Your task to perform on an android device: Do I have any events tomorrow? Image 0: 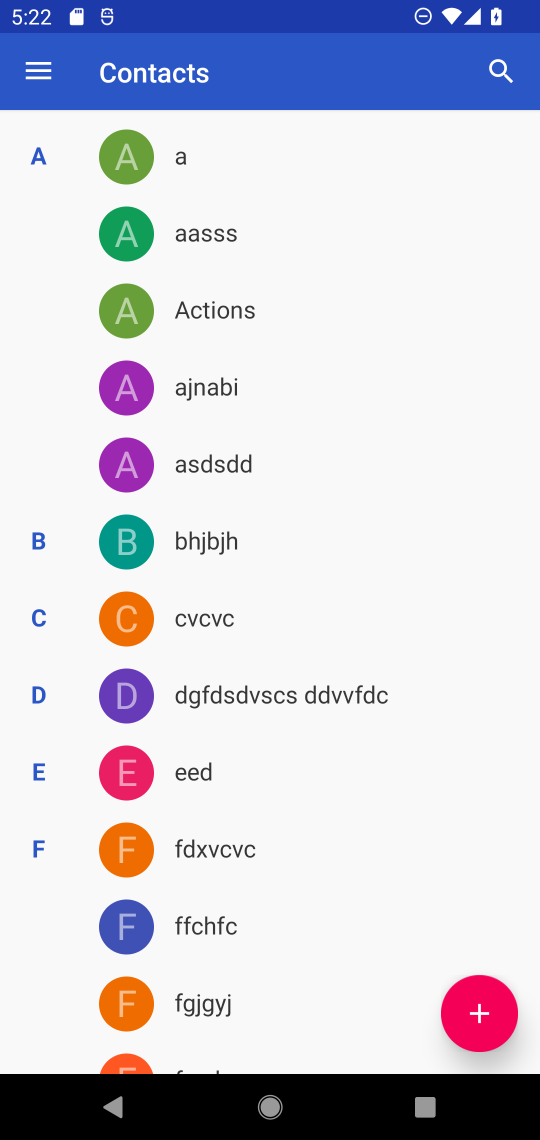
Step 0: press home button
Your task to perform on an android device: Do I have any events tomorrow? Image 1: 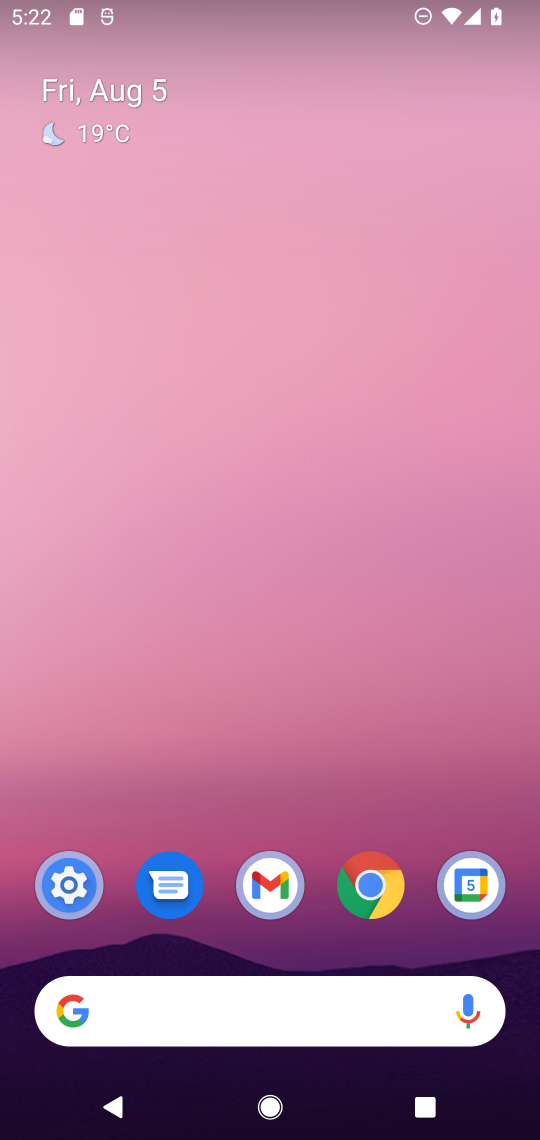
Step 1: drag from (297, 864) to (274, 122)
Your task to perform on an android device: Do I have any events tomorrow? Image 2: 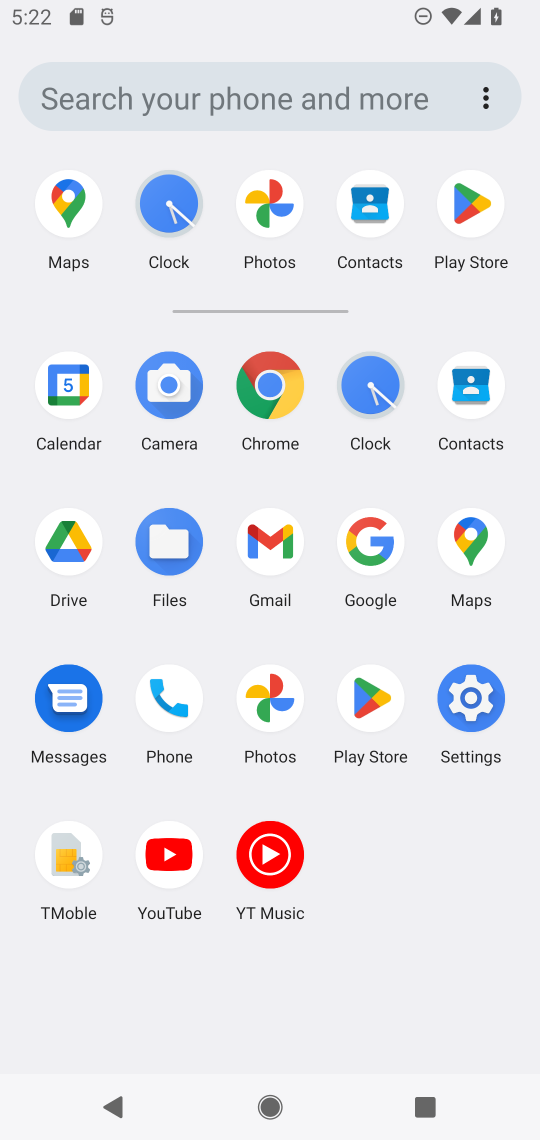
Step 2: click (63, 373)
Your task to perform on an android device: Do I have any events tomorrow? Image 3: 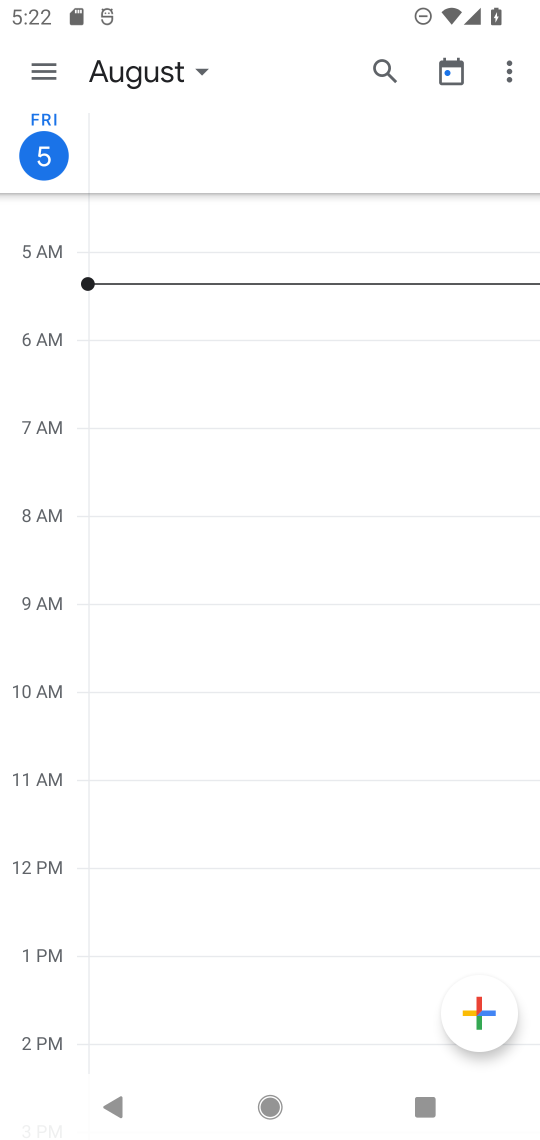
Step 3: click (200, 63)
Your task to perform on an android device: Do I have any events tomorrow? Image 4: 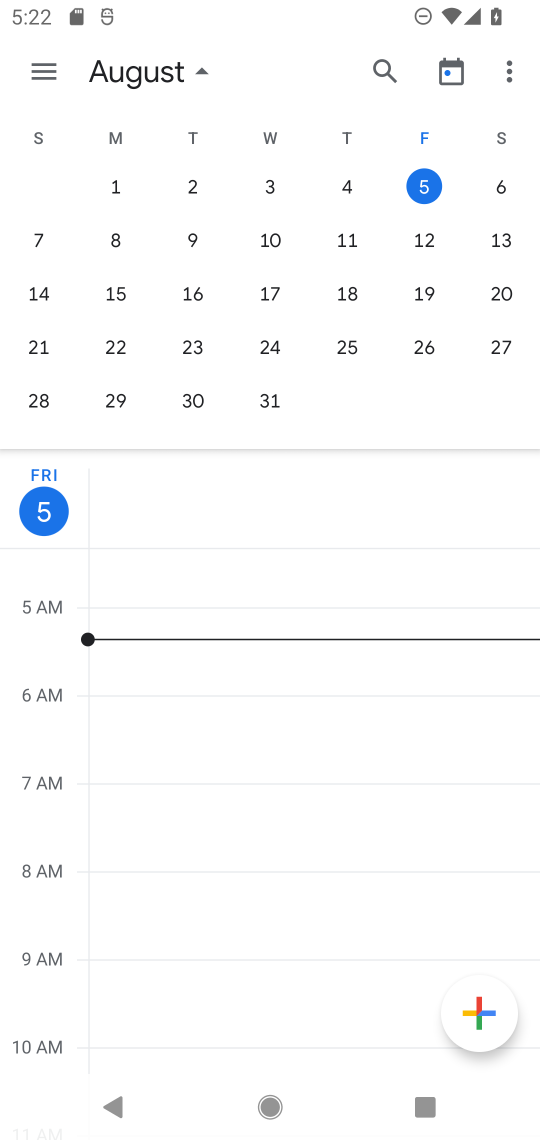
Step 4: click (498, 184)
Your task to perform on an android device: Do I have any events tomorrow? Image 5: 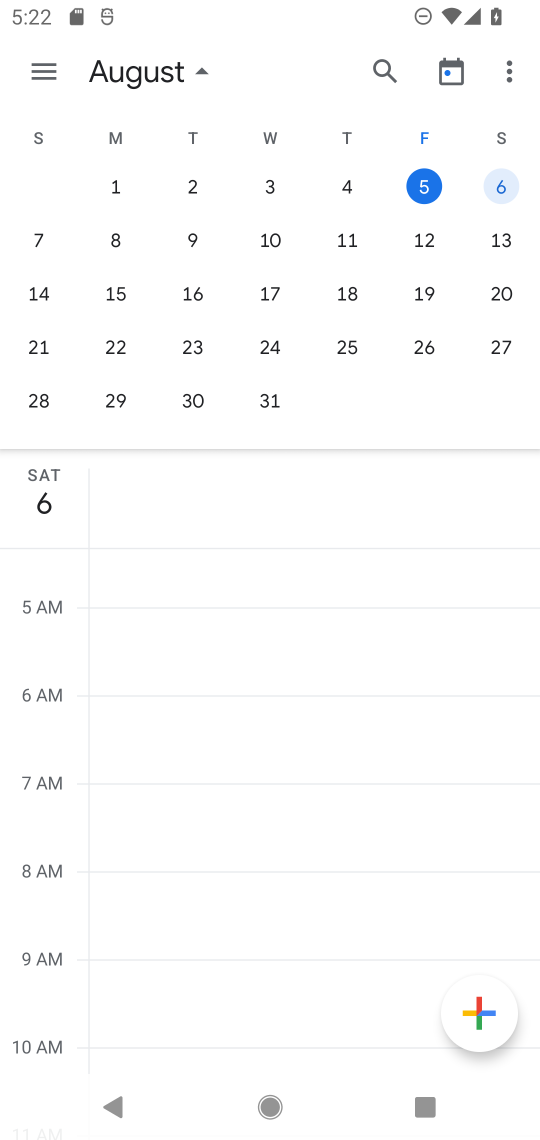
Step 5: click (501, 173)
Your task to perform on an android device: Do I have any events tomorrow? Image 6: 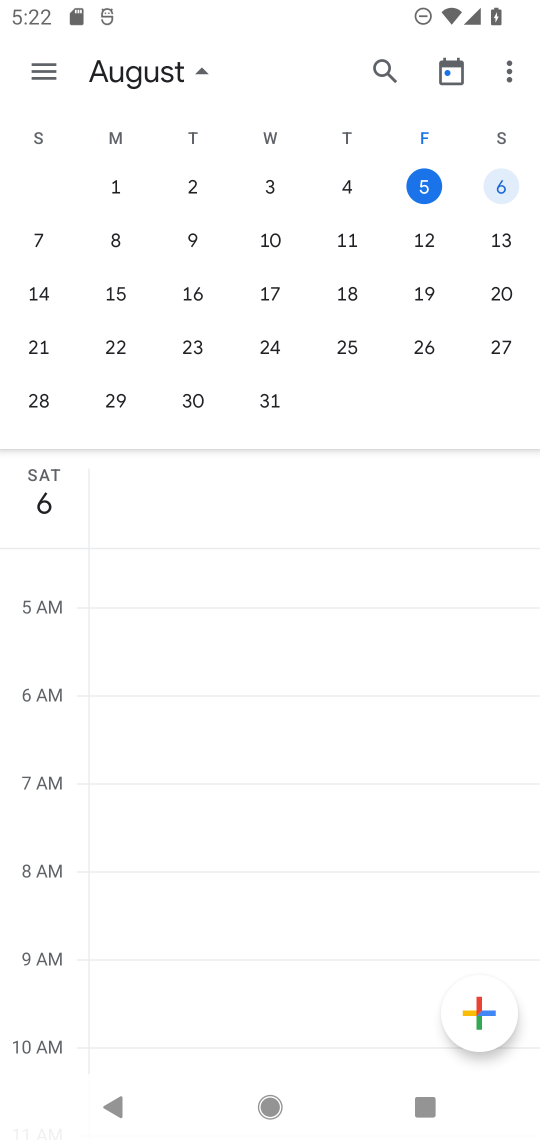
Step 6: click (41, 474)
Your task to perform on an android device: Do I have any events tomorrow? Image 7: 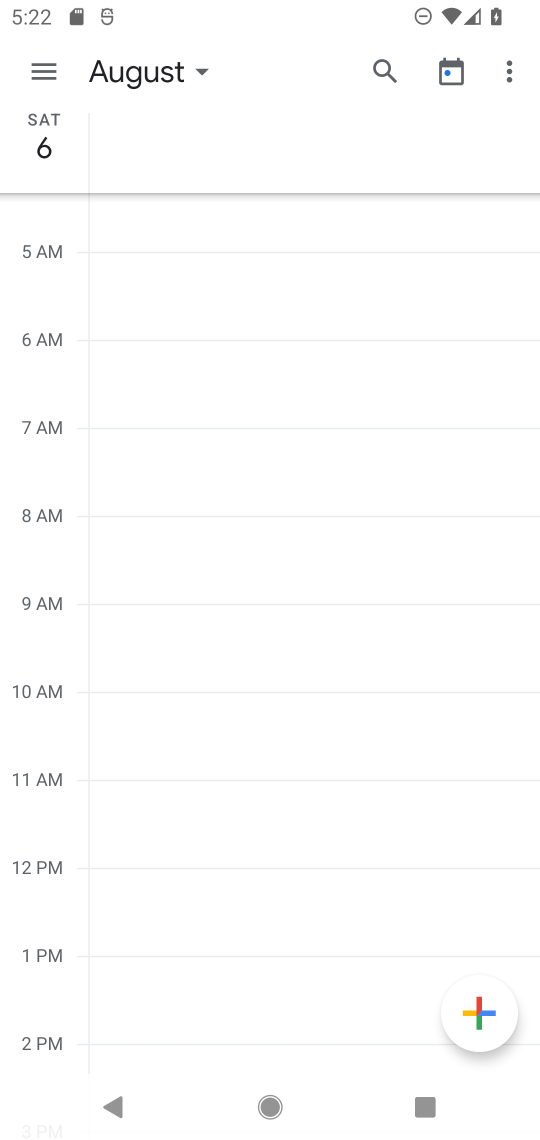
Step 7: click (43, 62)
Your task to perform on an android device: Do I have any events tomorrow? Image 8: 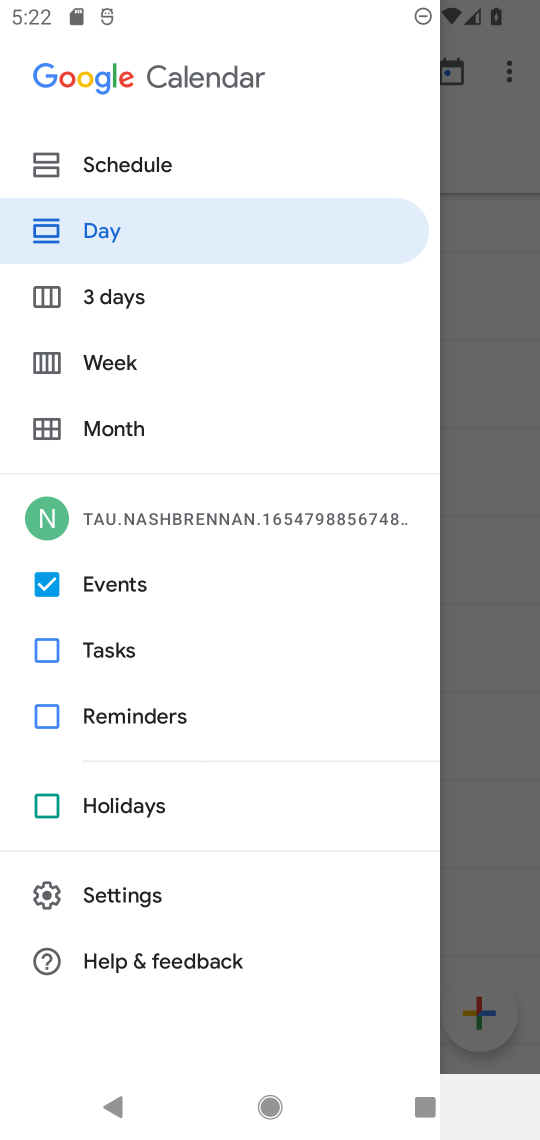
Step 8: click (486, 292)
Your task to perform on an android device: Do I have any events tomorrow? Image 9: 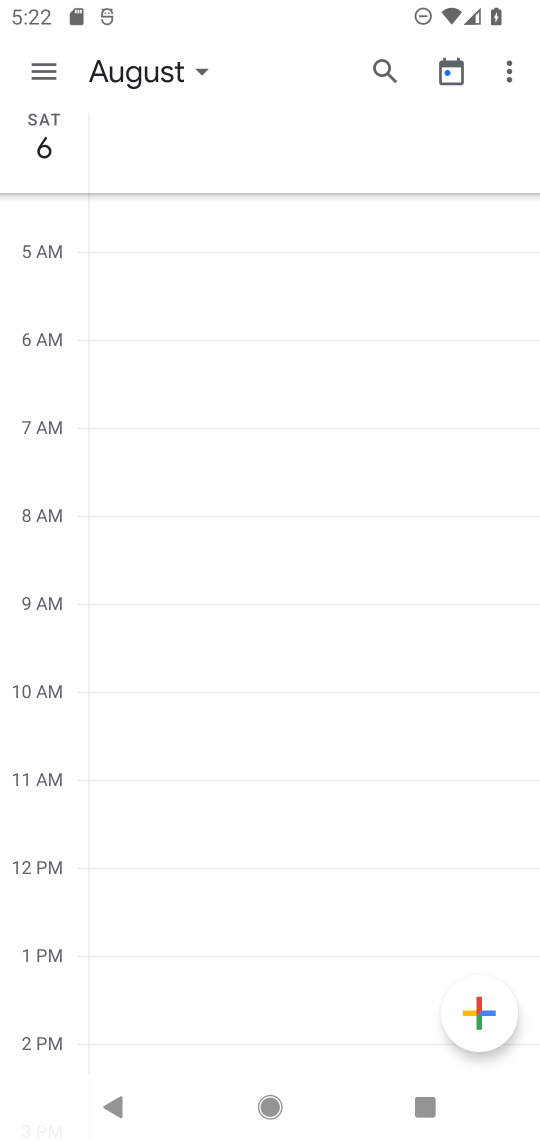
Step 9: task complete